Your task to perform on an android device: Open notification settings Image 0: 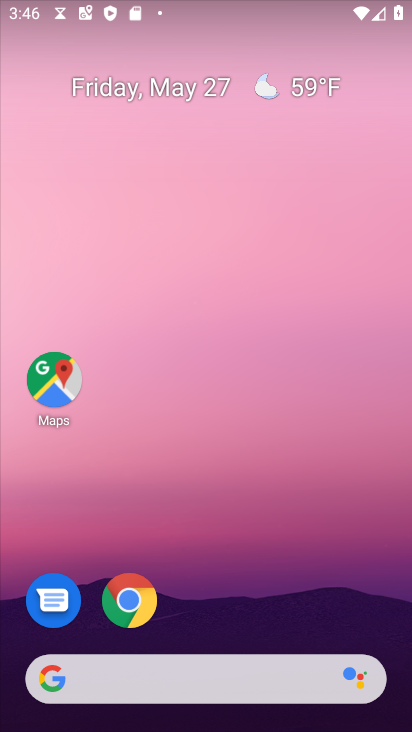
Step 0: drag from (260, 560) to (216, 87)
Your task to perform on an android device: Open notification settings Image 1: 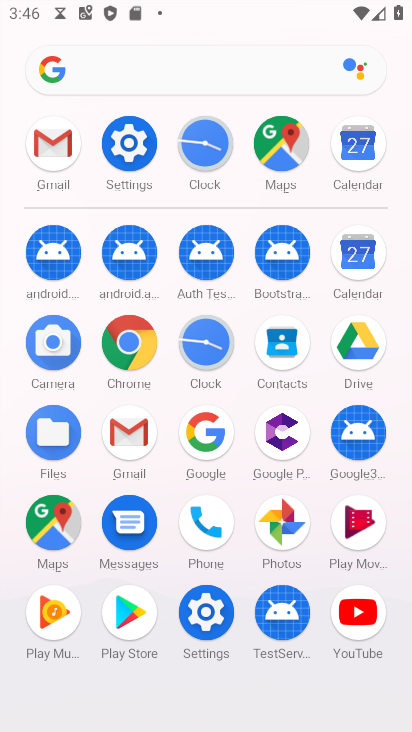
Step 1: click (206, 609)
Your task to perform on an android device: Open notification settings Image 2: 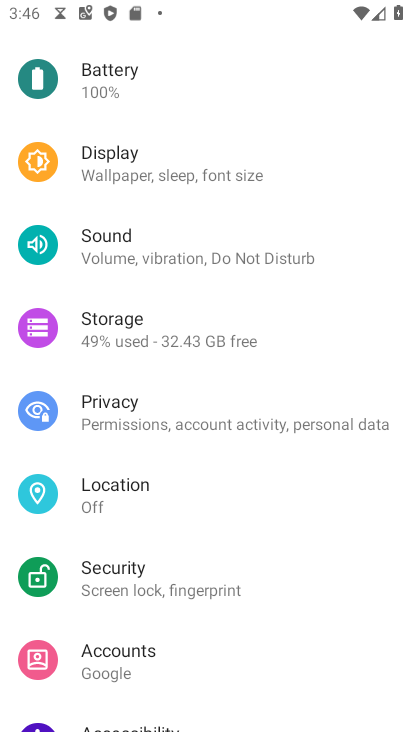
Step 2: drag from (223, 218) to (256, 395)
Your task to perform on an android device: Open notification settings Image 3: 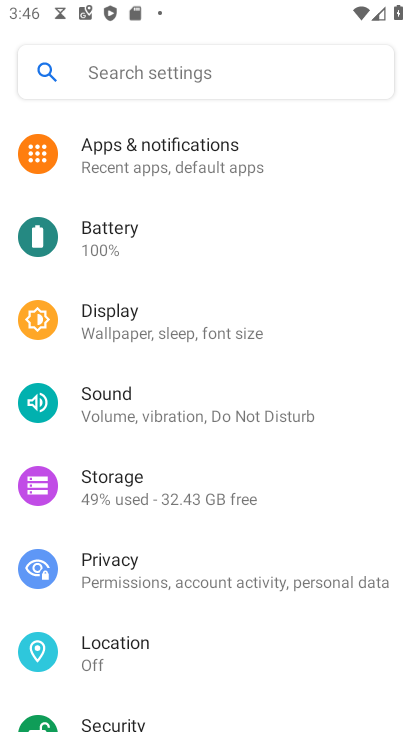
Step 3: click (165, 177)
Your task to perform on an android device: Open notification settings Image 4: 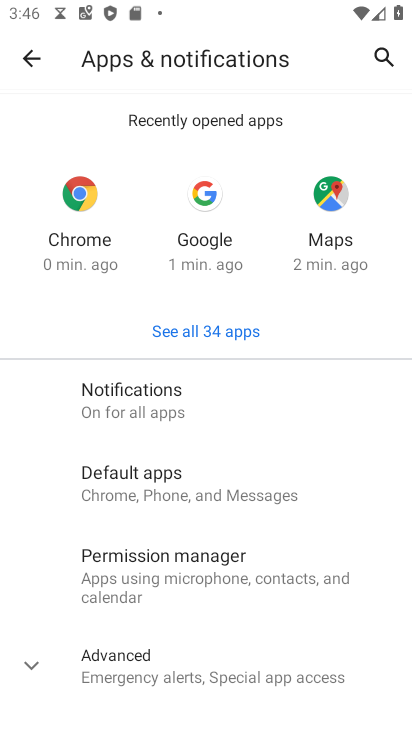
Step 4: click (175, 388)
Your task to perform on an android device: Open notification settings Image 5: 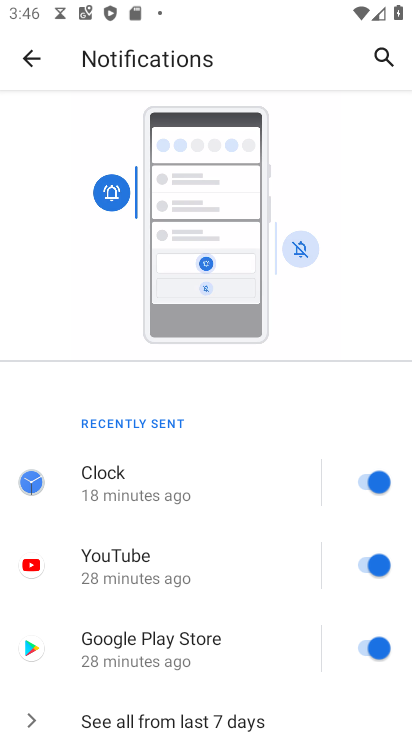
Step 5: task complete